Your task to perform on an android device: all mails in gmail Image 0: 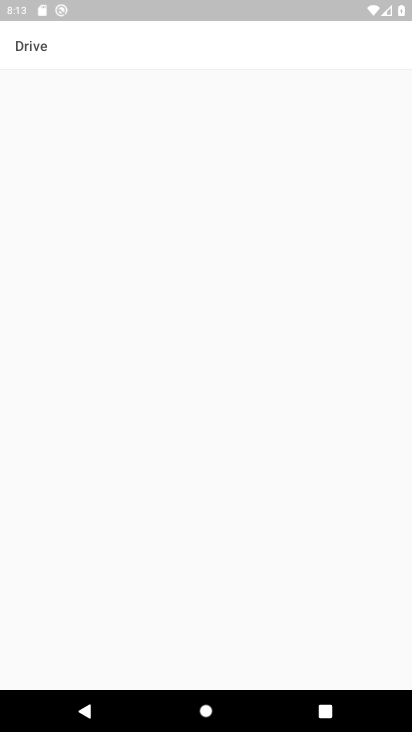
Step 0: press home button
Your task to perform on an android device: all mails in gmail Image 1: 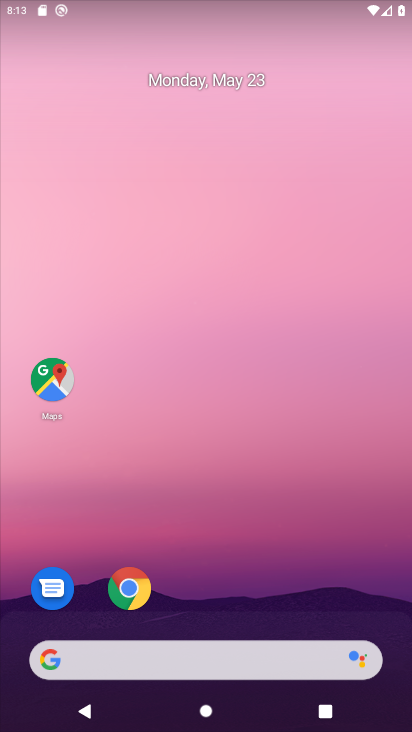
Step 1: drag from (147, 527) to (236, 275)
Your task to perform on an android device: all mails in gmail Image 2: 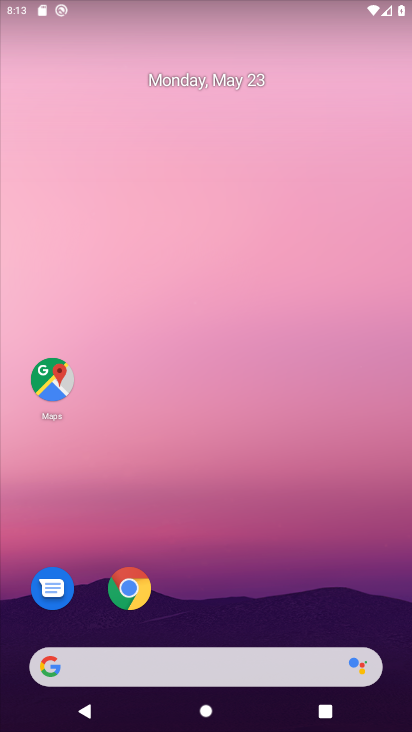
Step 2: drag from (239, 610) to (287, 248)
Your task to perform on an android device: all mails in gmail Image 3: 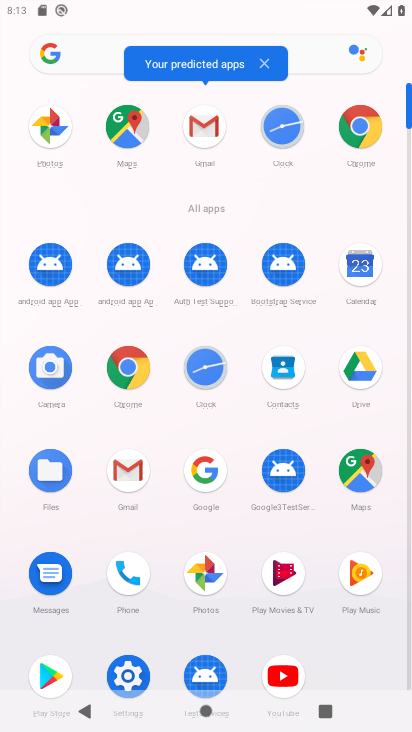
Step 3: click (202, 127)
Your task to perform on an android device: all mails in gmail Image 4: 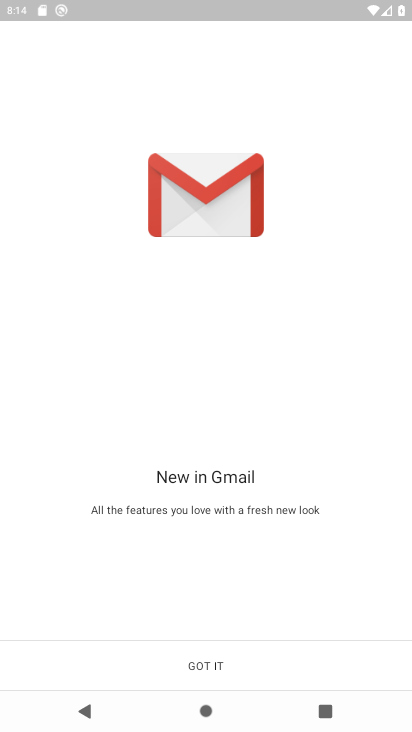
Step 4: click (210, 685)
Your task to perform on an android device: all mails in gmail Image 5: 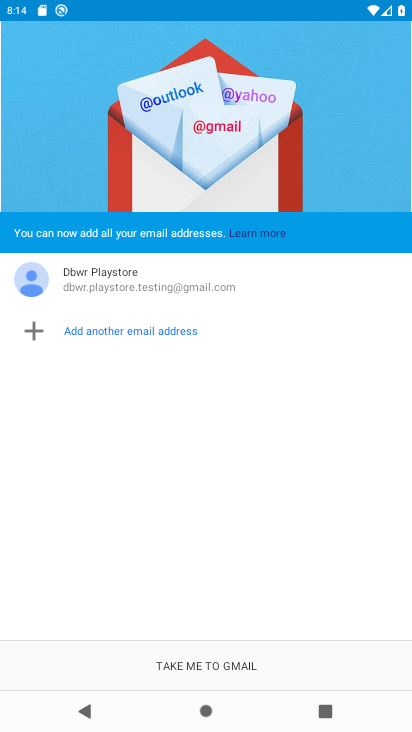
Step 5: click (187, 671)
Your task to perform on an android device: all mails in gmail Image 6: 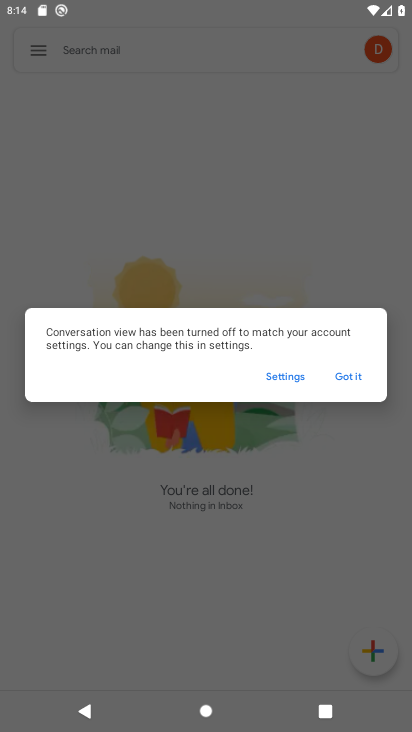
Step 6: click (360, 372)
Your task to perform on an android device: all mails in gmail Image 7: 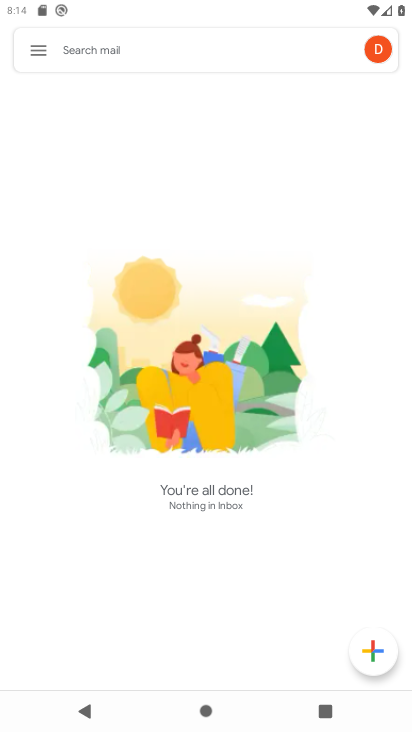
Step 7: click (44, 44)
Your task to perform on an android device: all mails in gmail Image 8: 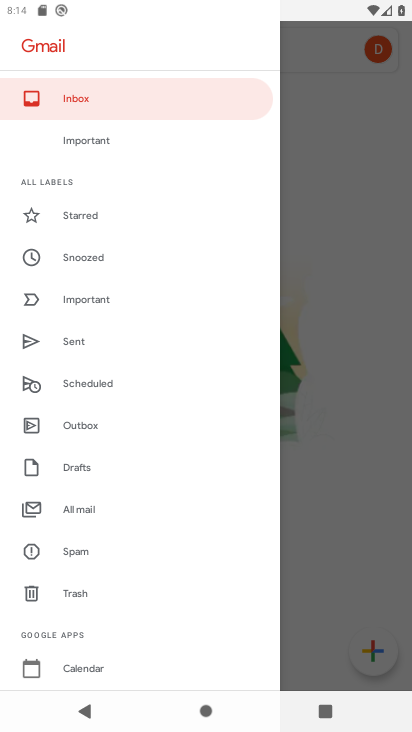
Step 8: click (116, 508)
Your task to perform on an android device: all mails in gmail Image 9: 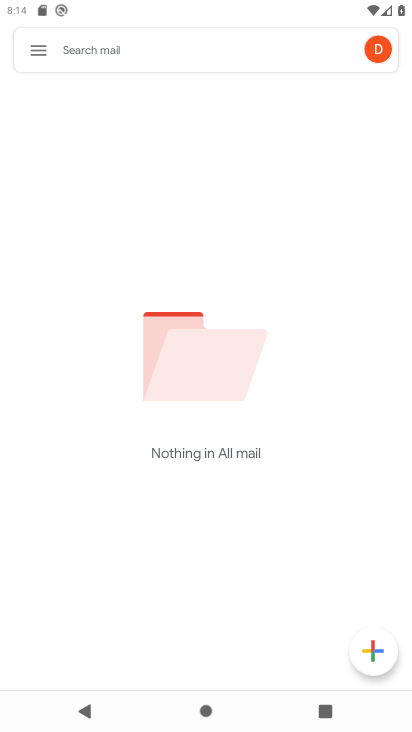
Step 9: task complete